Your task to perform on an android device: set the timer Image 0: 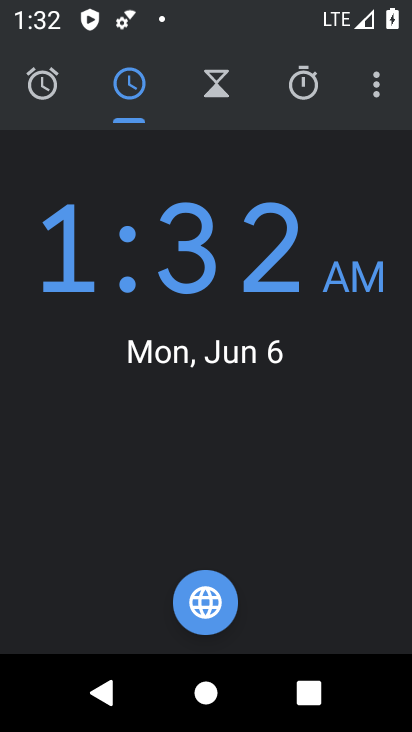
Step 0: click (223, 86)
Your task to perform on an android device: set the timer Image 1: 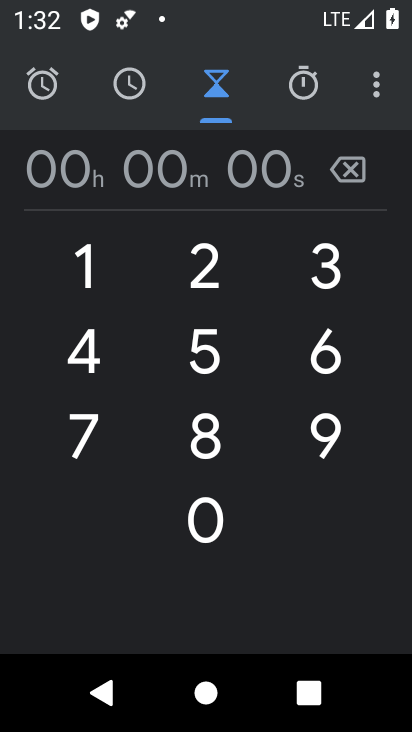
Step 1: click (101, 274)
Your task to perform on an android device: set the timer Image 2: 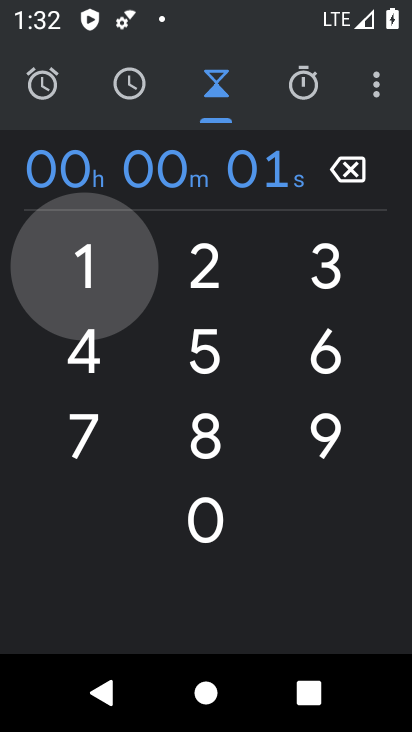
Step 2: click (101, 274)
Your task to perform on an android device: set the timer Image 3: 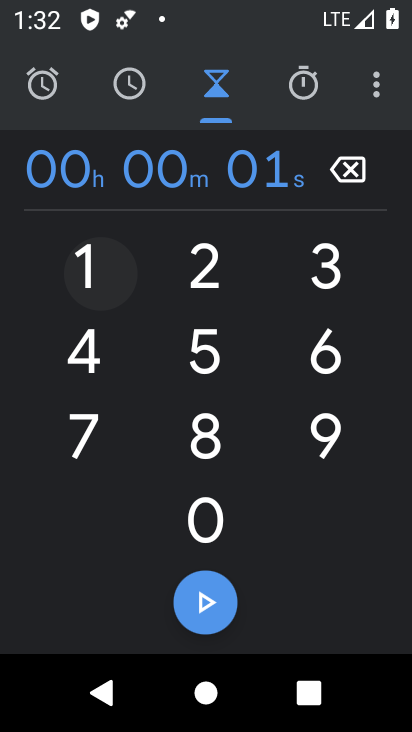
Step 3: click (102, 274)
Your task to perform on an android device: set the timer Image 4: 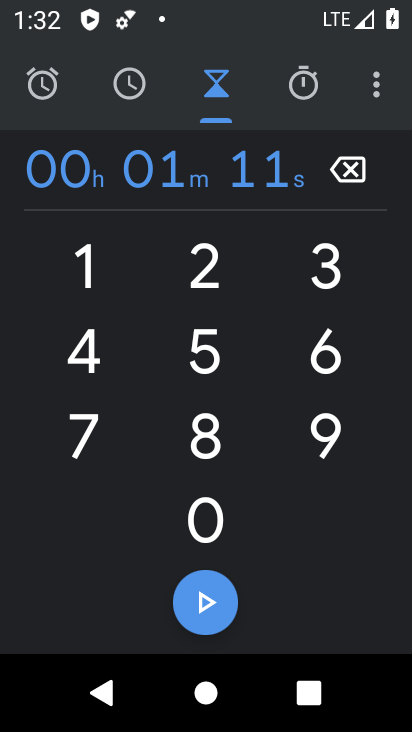
Step 4: click (193, 351)
Your task to perform on an android device: set the timer Image 5: 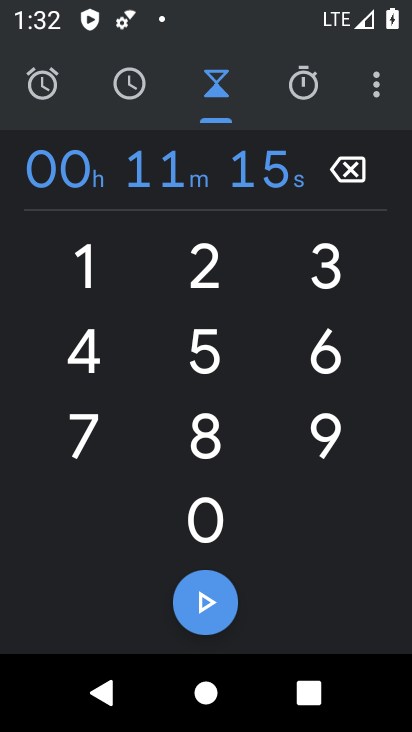
Step 5: click (203, 343)
Your task to perform on an android device: set the timer Image 6: 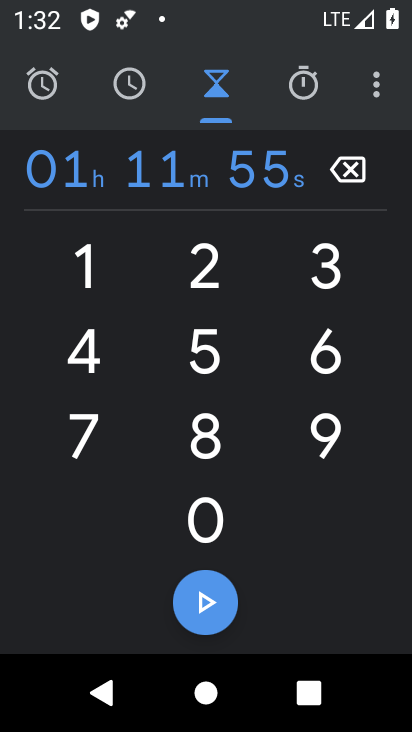
Step 6: click (204, 343)
Your task to perform on an android device: set the timer Image 7: 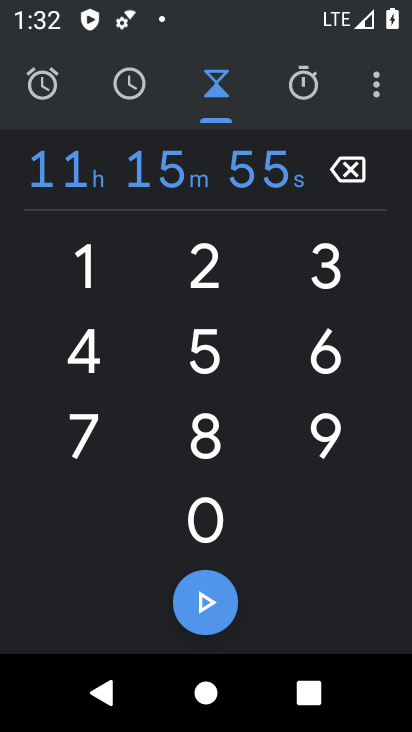
Step 7: task complete